Your task to perform on an android device: Is it going to rain today? Image 0: 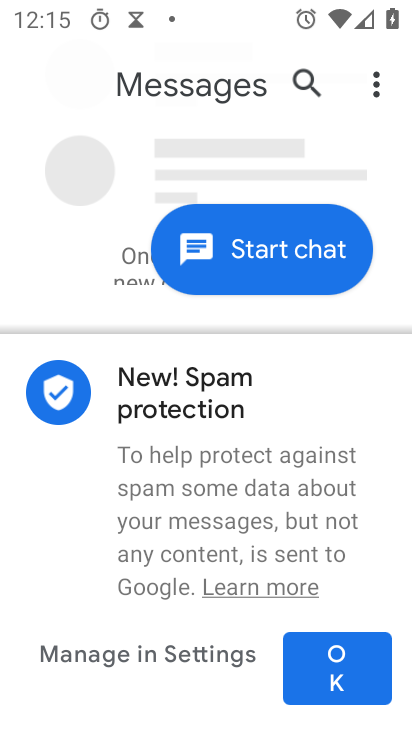
Step 0: press home button
Your task to perform on an android device: Is it going to rain today? Image 1: 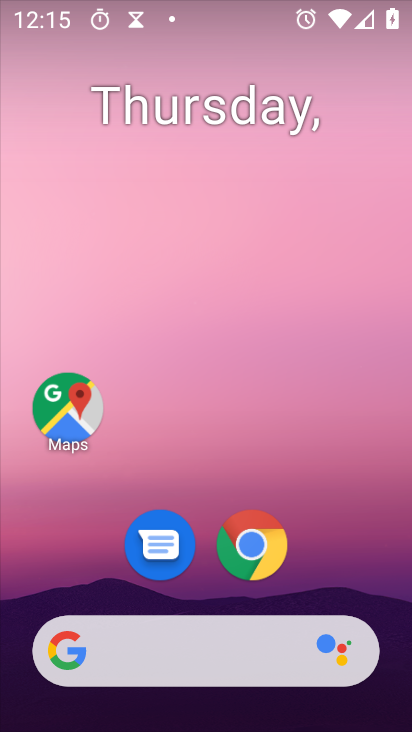
Step 1: click (78, 649)
Your task to perform on an android device: Is it going to rain today? Image 2: 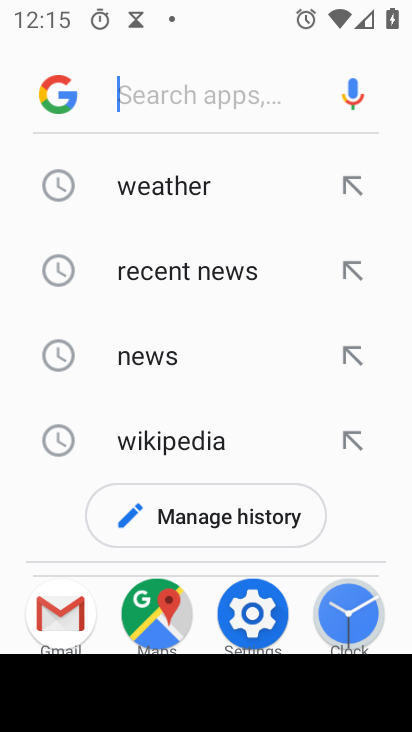
Step 2: click (192, 192)
Your task to perform on an android device: Is it going to rain today? Image 3: 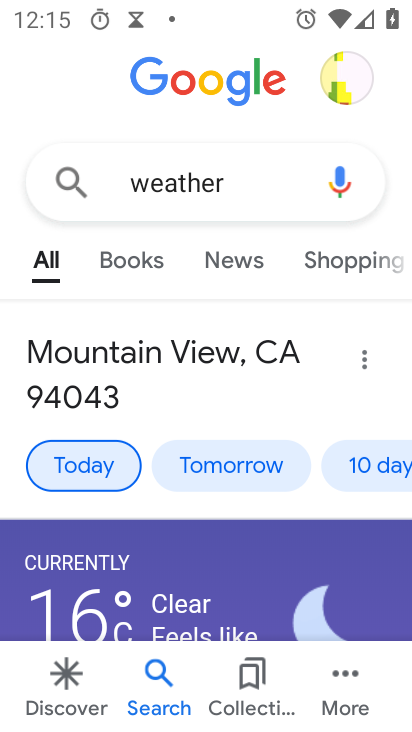
Step 3: task complete